Your task to perform on an android device: open app "Yahoo Mail" (install if not already installed) Image 0: 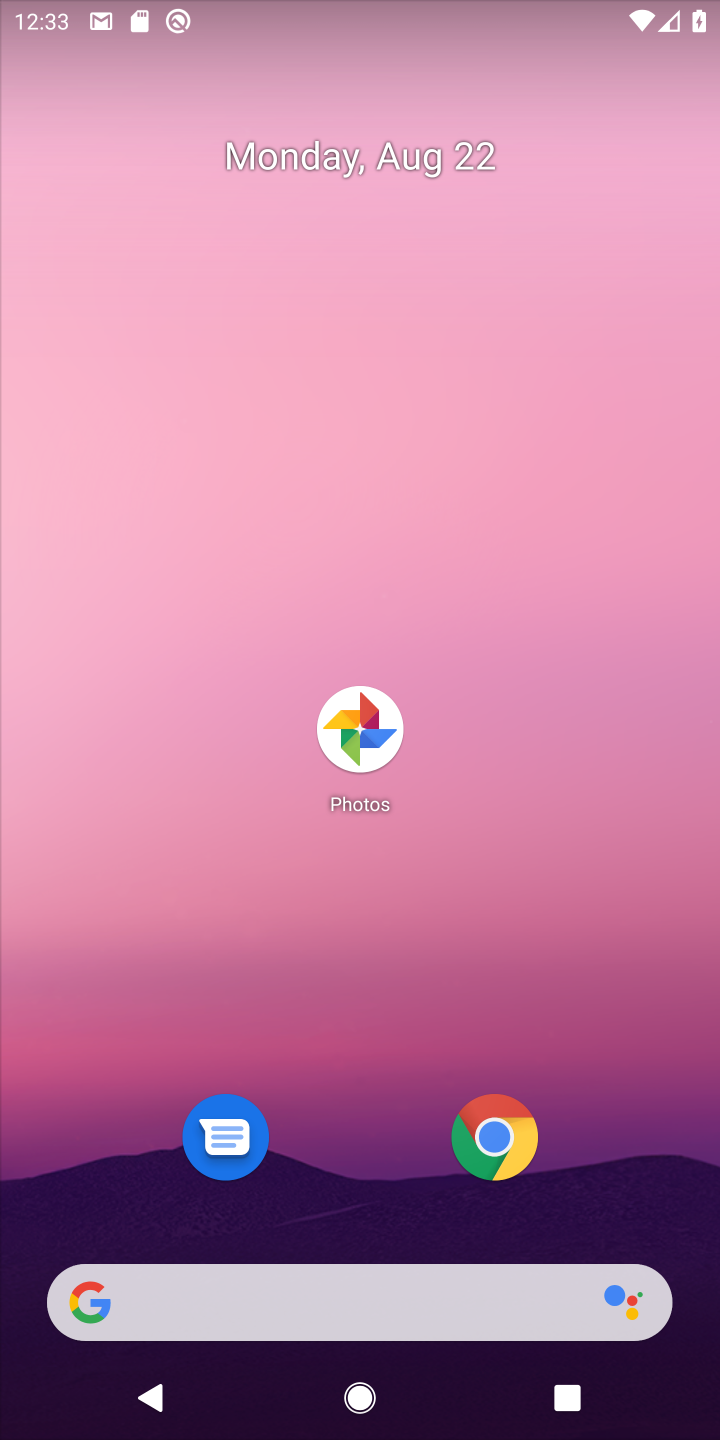
Step 0: drag from (641, 1129) to (525, 57)
Your task to perform on an android device: open app "Yahoo Mail" (install if not already installed) Image 1: 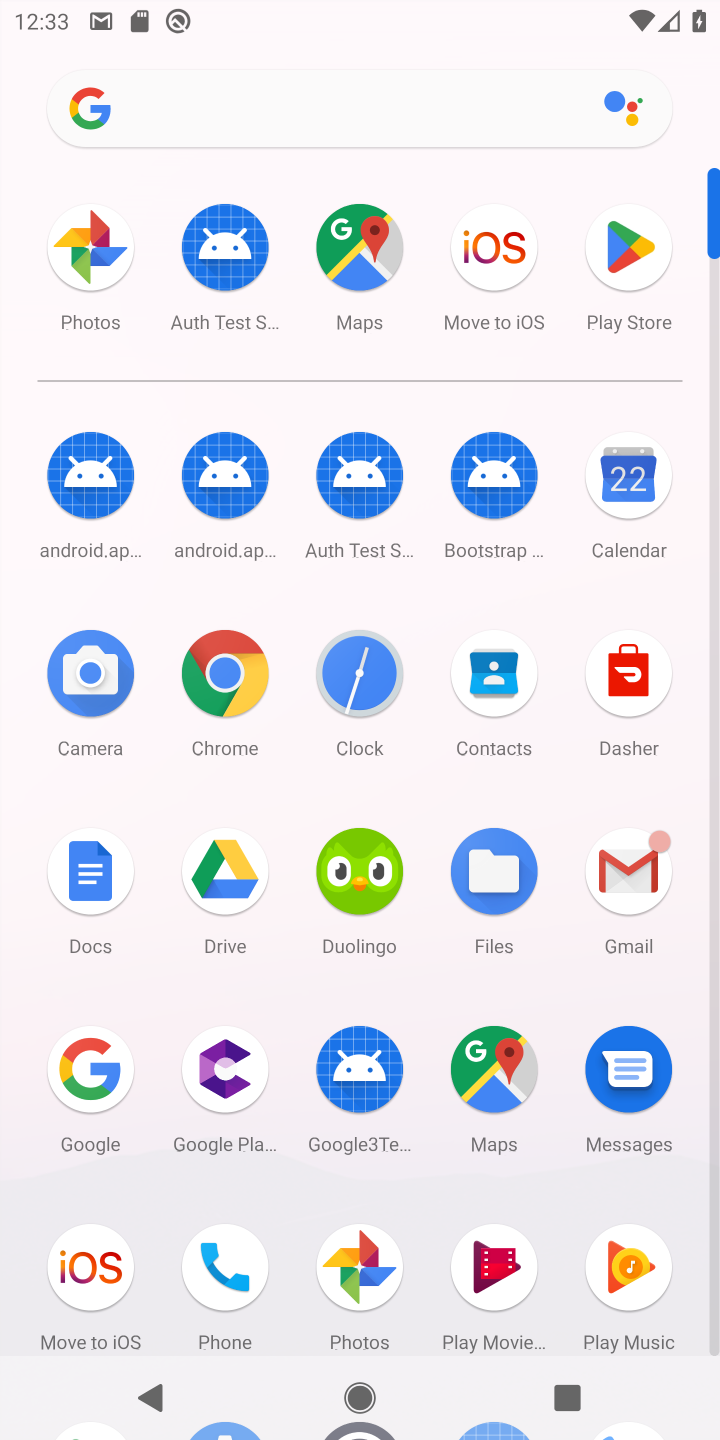
Step 1: drag from (428, 1161) to (419, 505)
Your task to perform on an android device: open app "Yahoo Mail" (install if not already installed) Image 2: 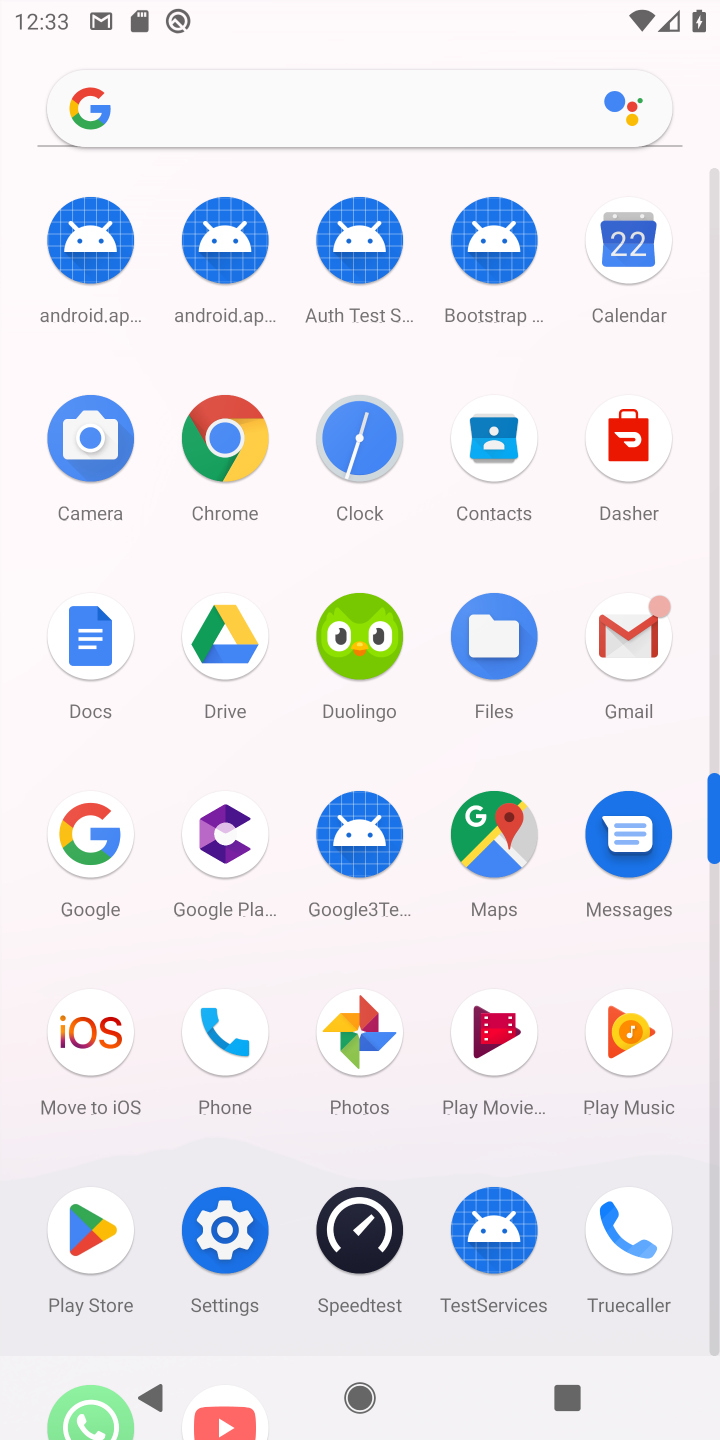
Step 2: click (89, 1222)
Your task to perform on an android device: open app "Yahoo Mail" (install if not already installed) Image 3: 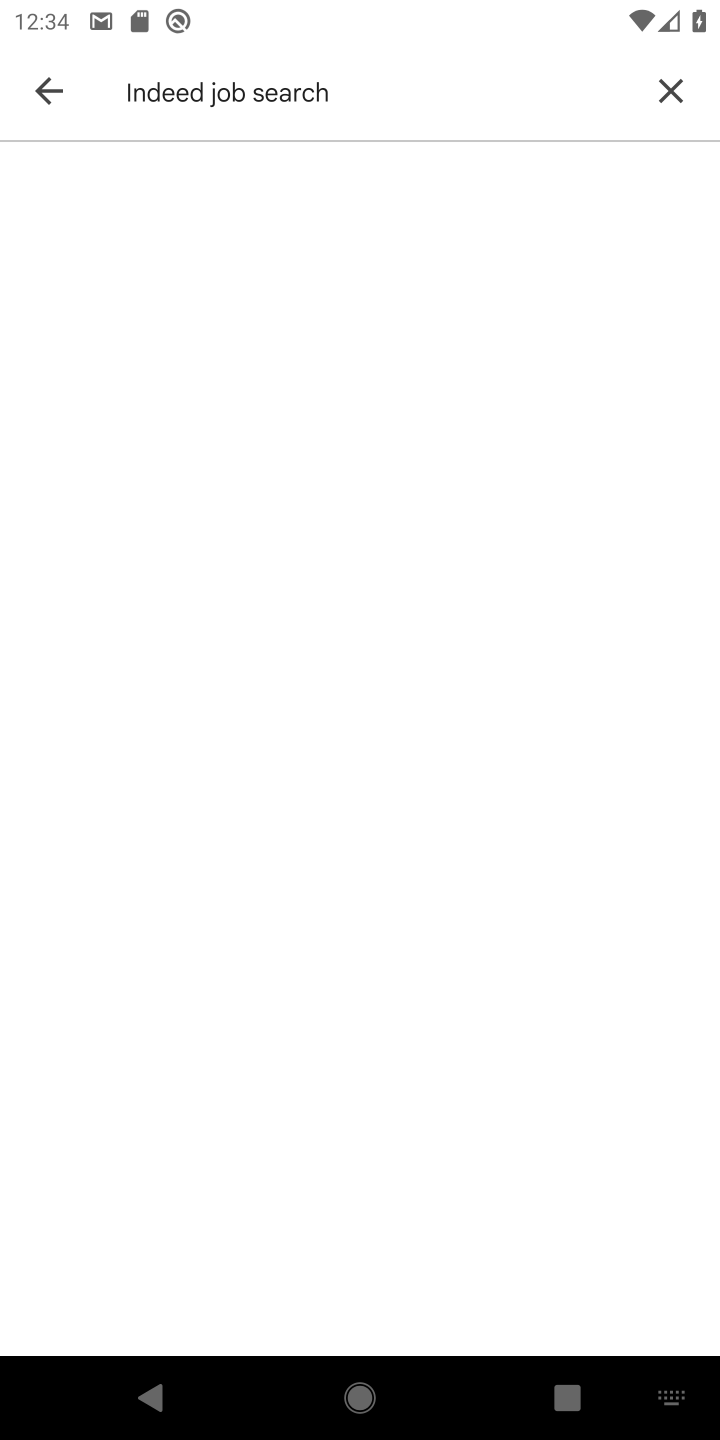
Step 3: click (666, 82)
Your task to perform on an android device: open app "Yahoo Mail" (install if not already installed) Image 4: 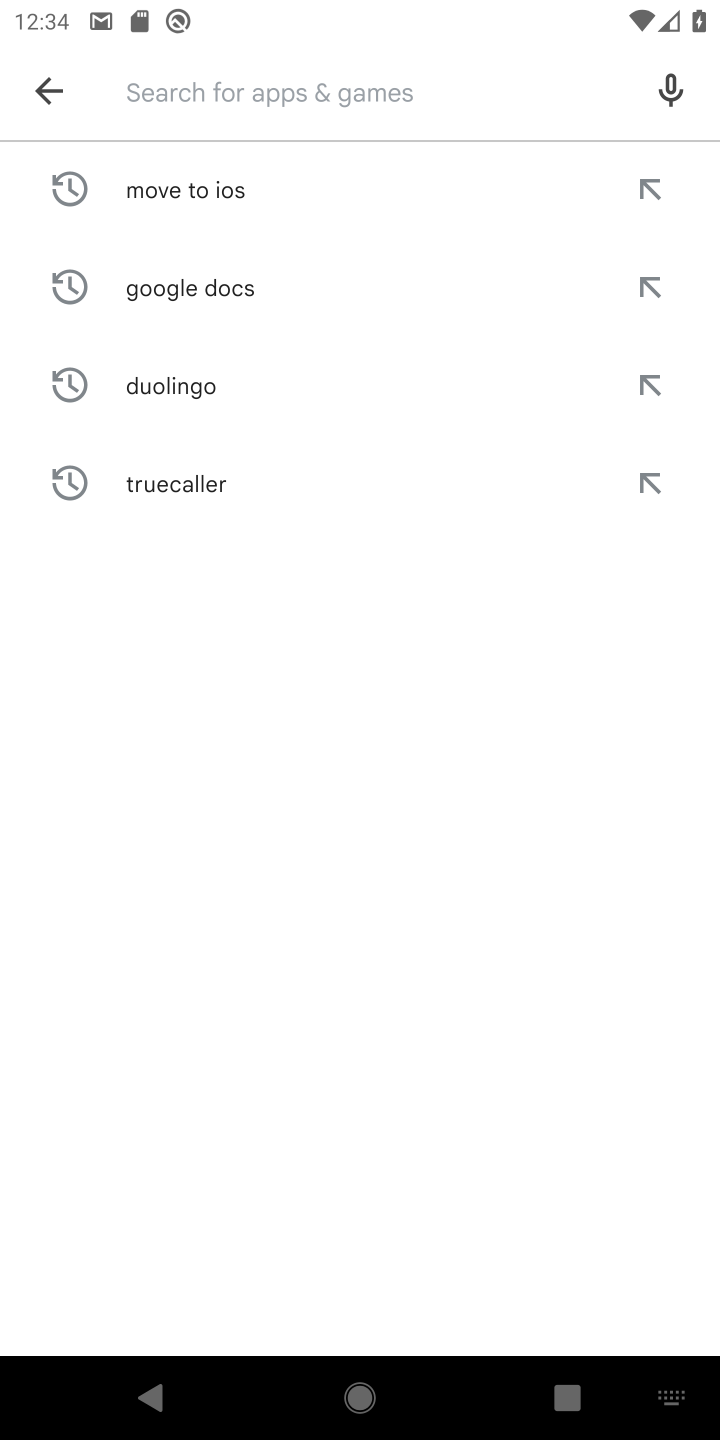
Step 4: type "Yahoo Mail"
Your task to perform on an android device: open app "Yahoo Mail" (install if not already installed) Image 5: 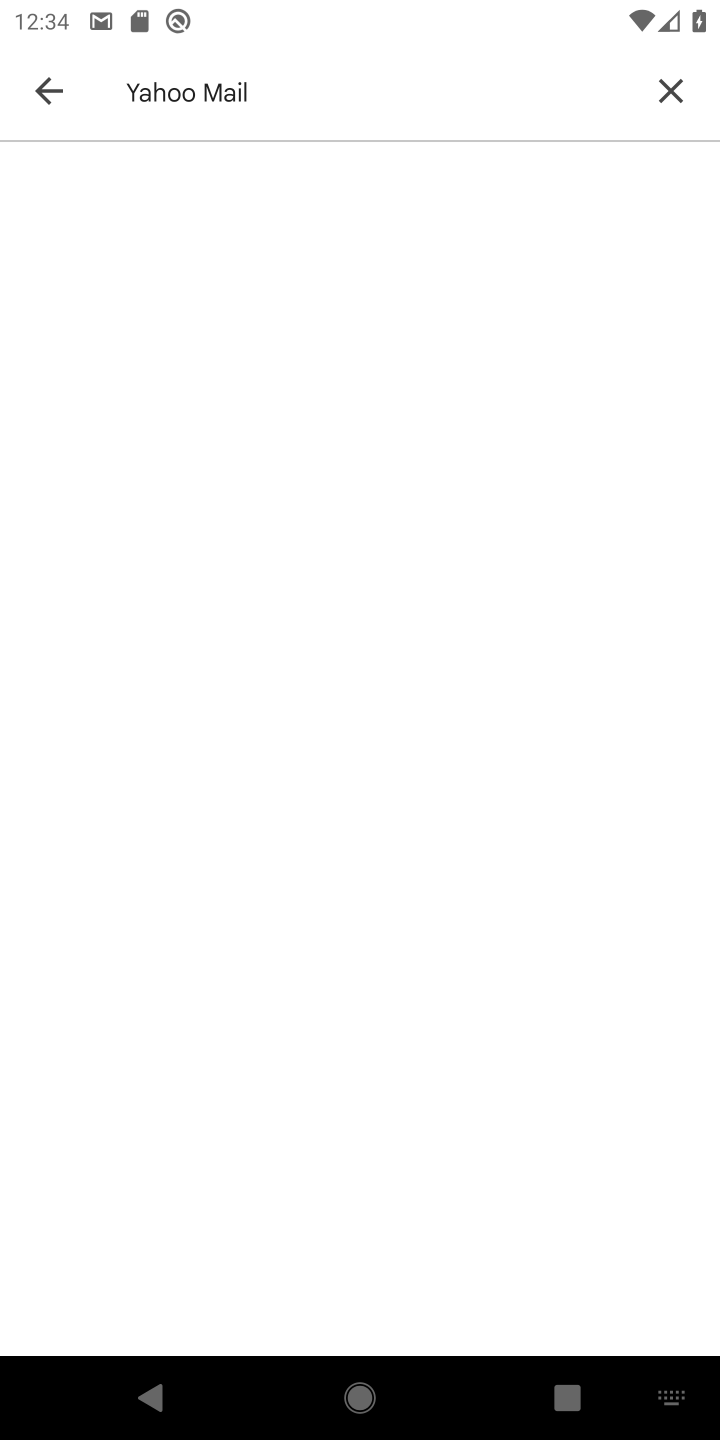
Step 5: task complete